Your task to perform on an android device: turn off wifi Image 0: 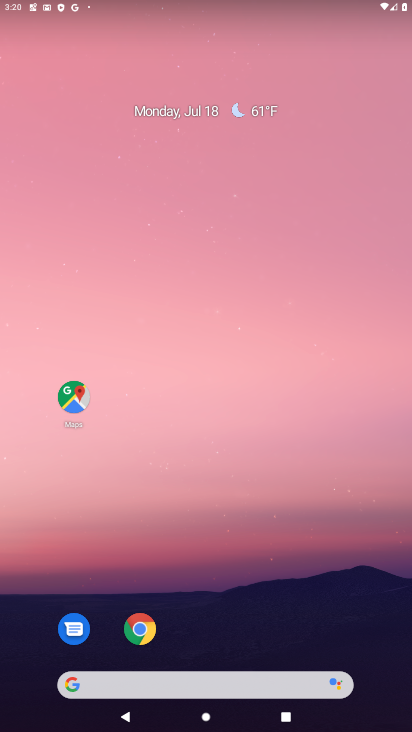
Step 0: drag from (263, 664) to (266, 216)
Your task to perform on an android device: turn off wifi Image 1: 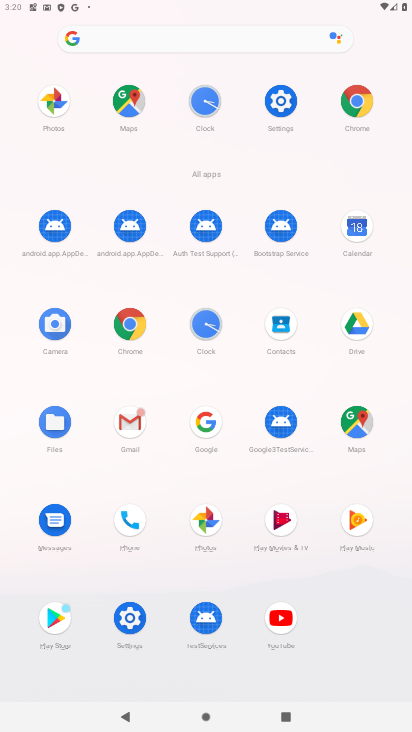
Step 1: click (282, 105)
Your task to perform on an android device: turn off wifi Image 2: 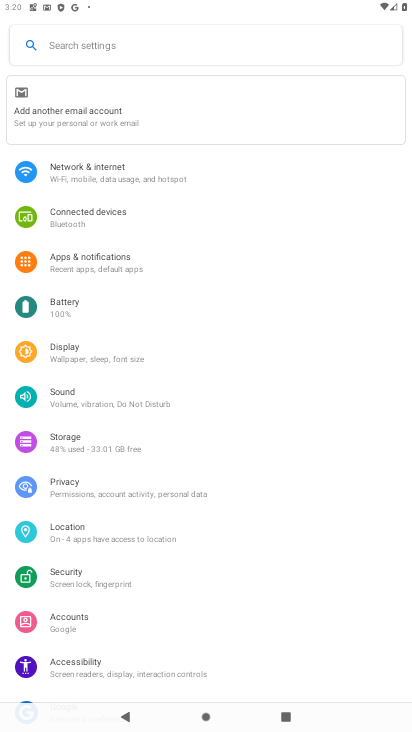
Step 2: click (71, 178)
Your task to perform on an android device: turn off wifi Image 3: 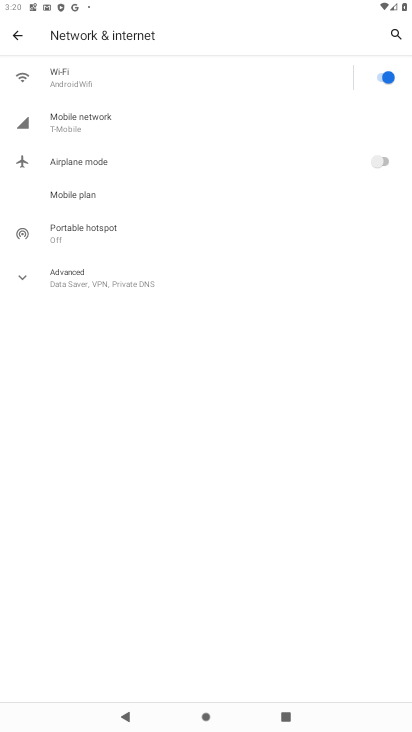
Step 3: click (89, 171)
Your task to perform on an android device: turn off wifi Image 4: 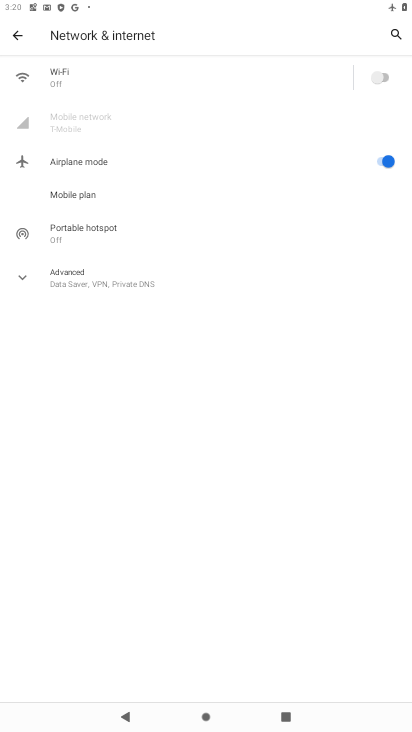
Step 4: task complete